Your task to perform on an android device: Open Google Chrome and open the bookmarks view Image 0: 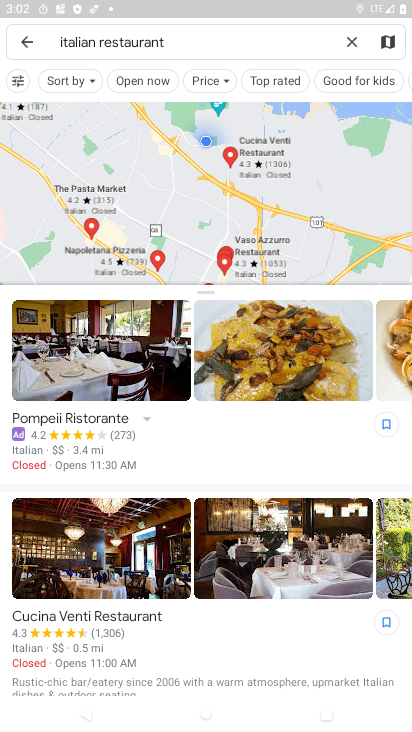
Step 0: press home button
Your task to perform on an android device: Open Google Chrome and open the bookmarks view Image 1: 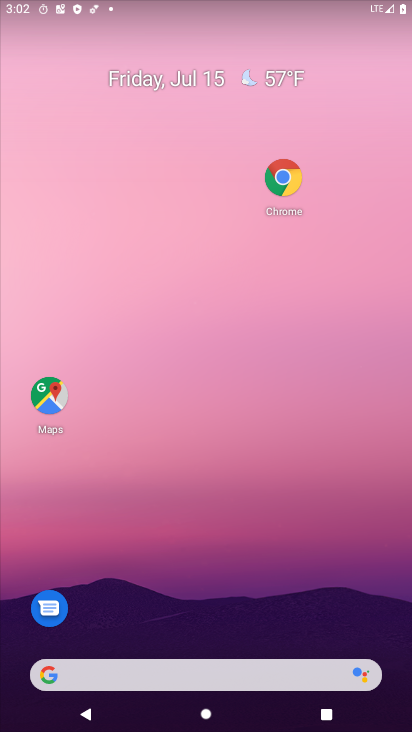
Step 1: click (274, 182)
Your task to perform on an android device: Open Google Chrome and open the bookmarks view Image 2: 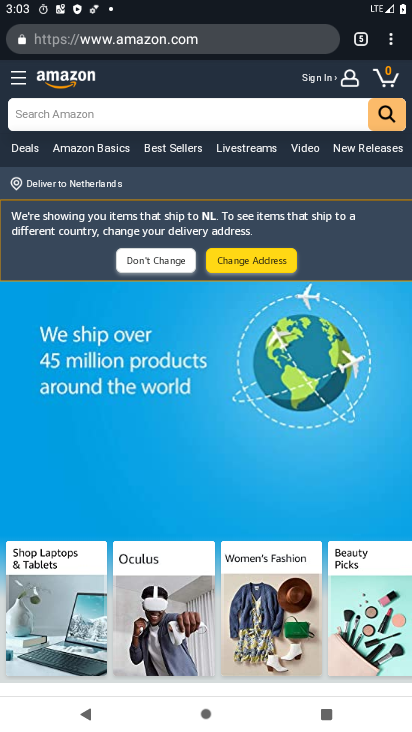
Step 2: task complete